Your task to perform on an android device: find photos in the google photos app Image 0: 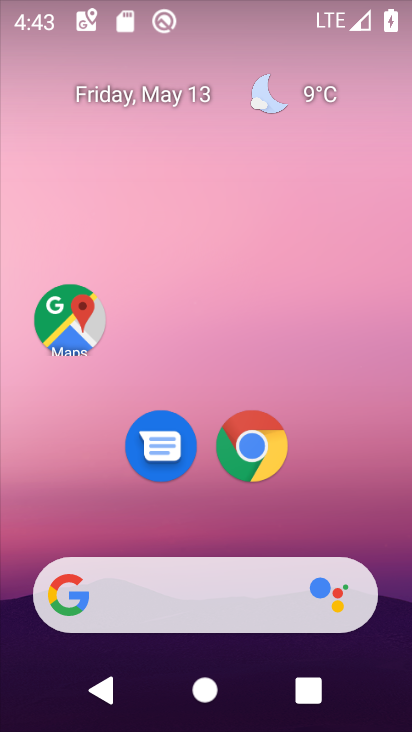
Step 0: drag from (185, 542) to (193, 9)
Your task to perform on an android device: find photos in the google photos app Image 1: 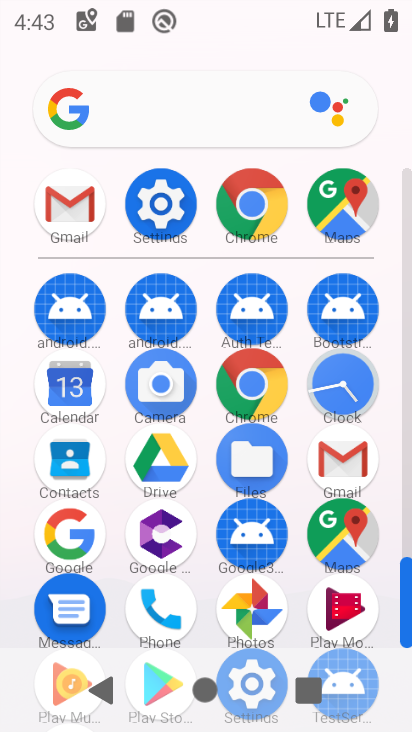
Step 1: click (257, 598)
Your task to perform on an android device: find photos in the google photos app Image 2: 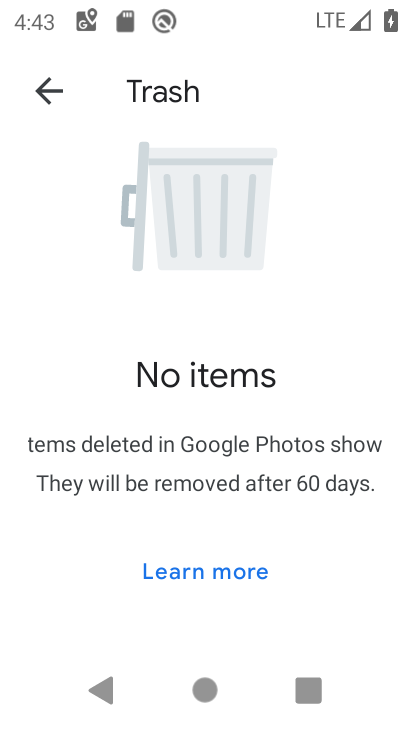
Step 2: click (36, 94)
Your task to perform on an android device: find photos in the google photos app Image 3: 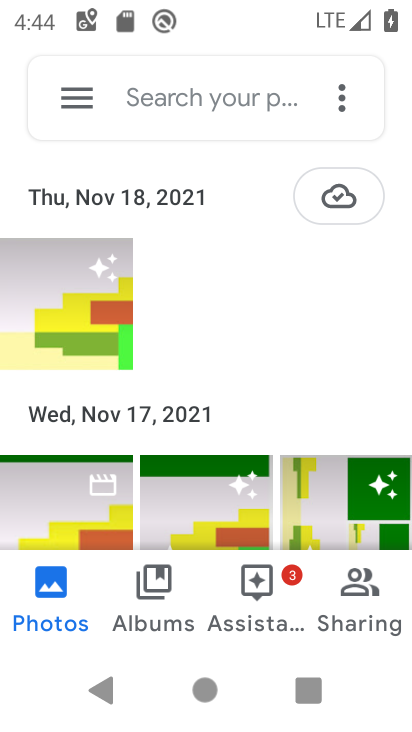
Step 3: task complete